Your task to perform on an android device: Google the capital of Peru Image 0: 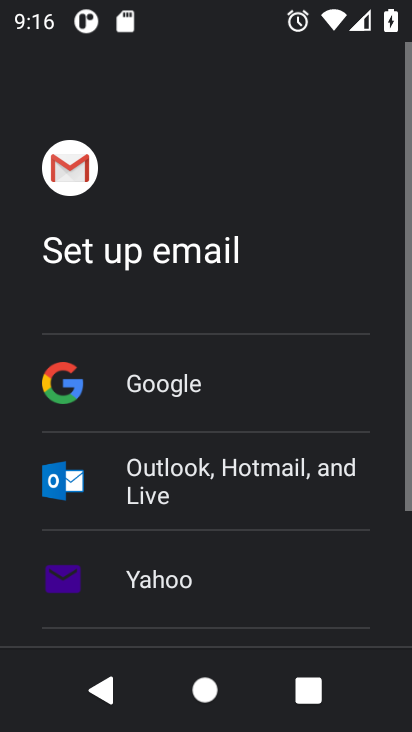
Step 0: press home button
Your task to perform on an android device: Google the capital of Peru Image 1: 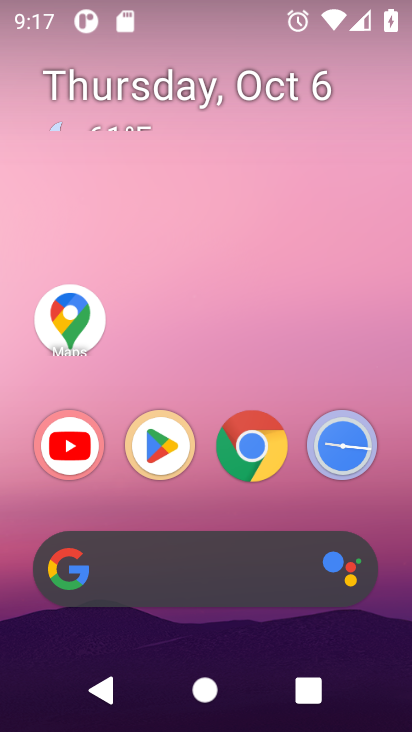
Step 1: click (49, 317)
Your task to perform on an android device: Google the capital of Peru Image 2: 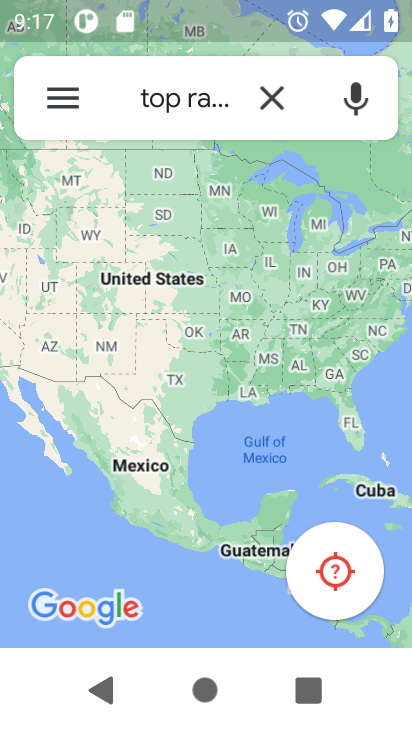
Step 2: click (279, 110)
Your task to perform on an android device: Google the capital of Peru Image 3: 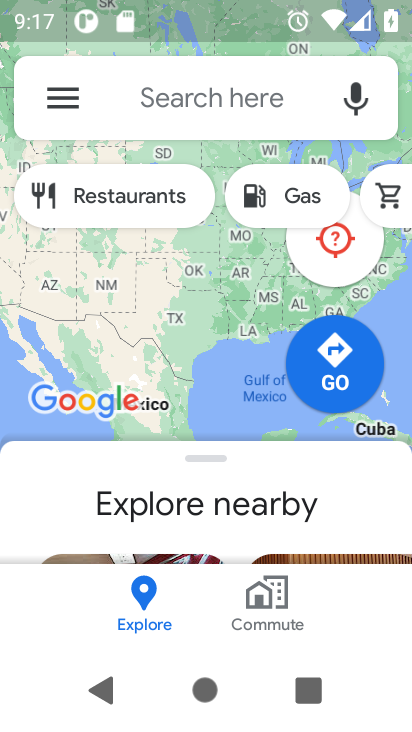
Step 3: type "Google the capital of Peru"
Your task to perform on an android device: Google the capital of Peru Image 4: 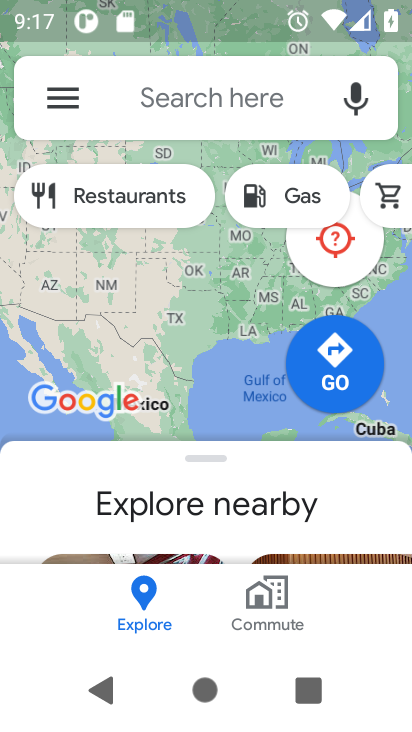
Step 4: press home button
Your task to perform on an android device: Google the capital of Peru Image 5: 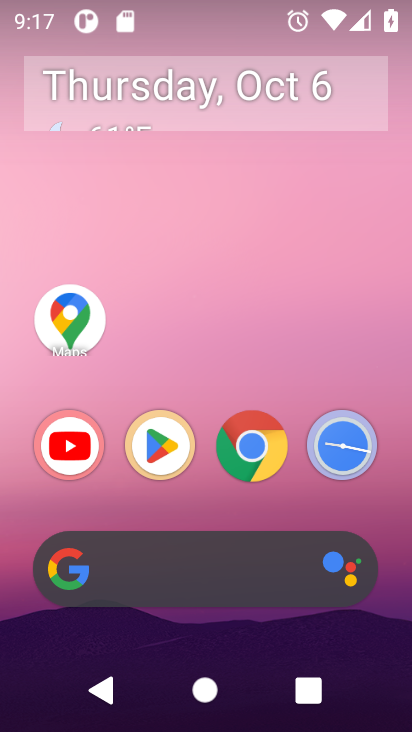
Step 5: click (198, 544)
Your task to perform on an android device: Google the capital of Peru Image 6: 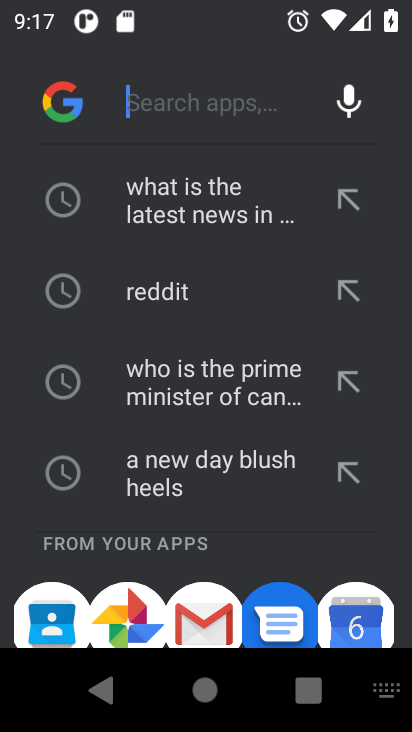
Step 6: type "Google the capital of Peru"
Your task to perform on an android device: Google the capital of Peru Image 7: 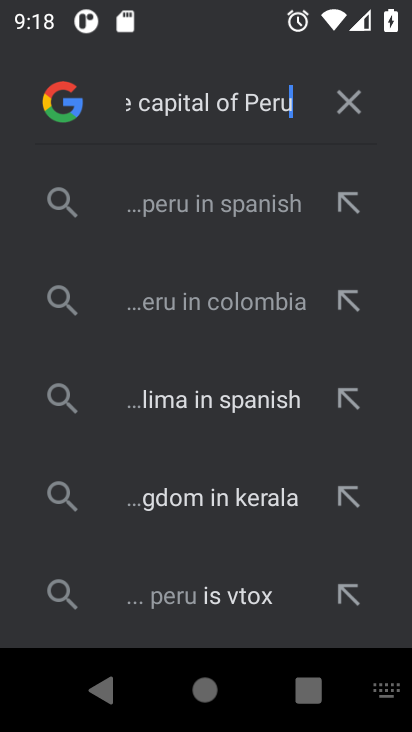
Step 7: task complete